Your task to perform on an android device: turn off location Image 0: 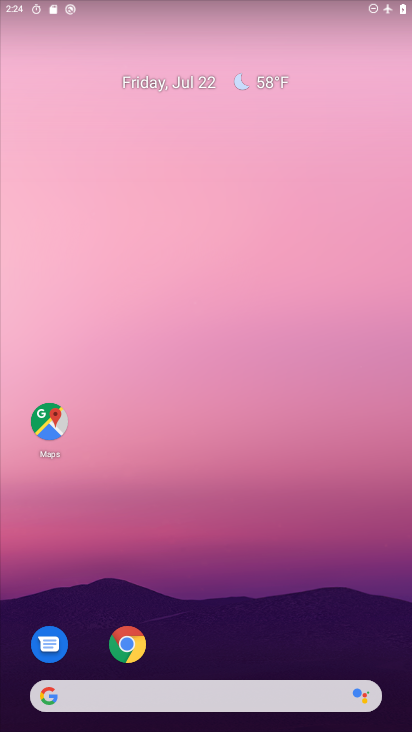
Step 0: drag from (194, 654) to (178, 225)
Your task to perform on an android device: turn off location Image 1: 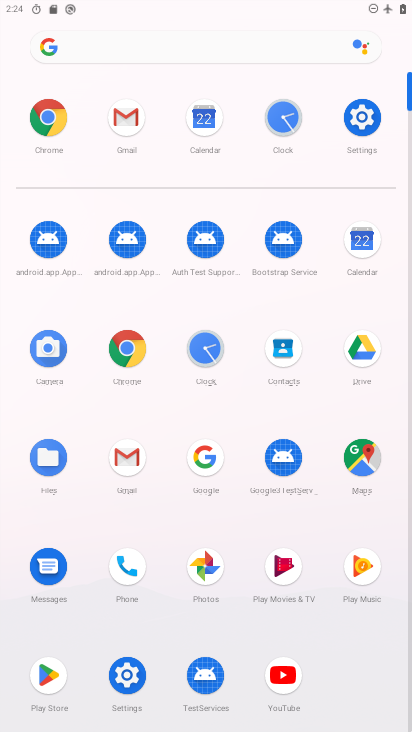
Step 1: click (346, 113)
Your task to perform on an android device: turn off location Image 2: 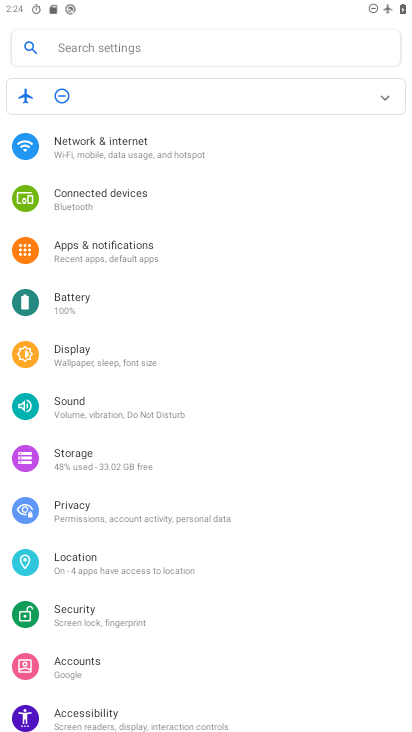
Step 2: click (147, 560)
Your task to perform on an android device: turn off location Image 3: 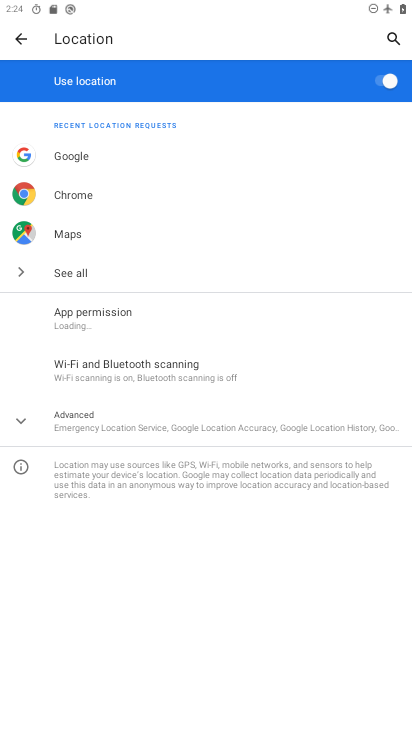
Step 3: click (384, 84)
Your task to perform on an android device: turn off location Image 4: 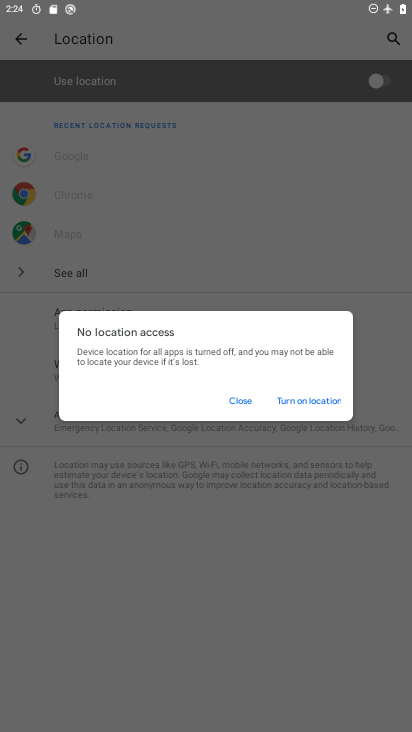
Step 4: task complete